Your task to perform on an android device: Open Google Maps Image 0: 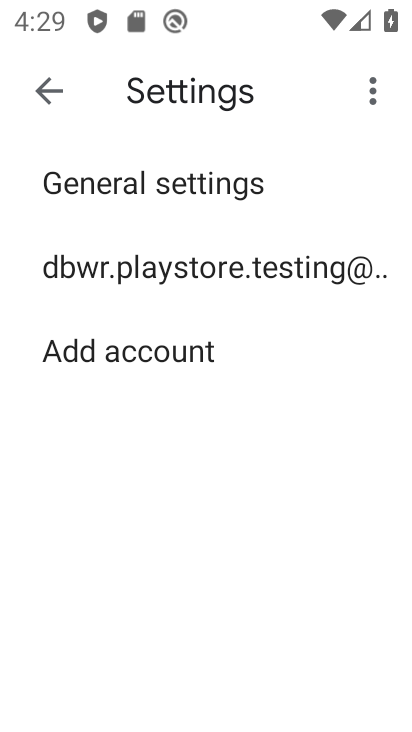
Step 0: press home button
Your task to perform on an android device: Open Google Maps Image 1: 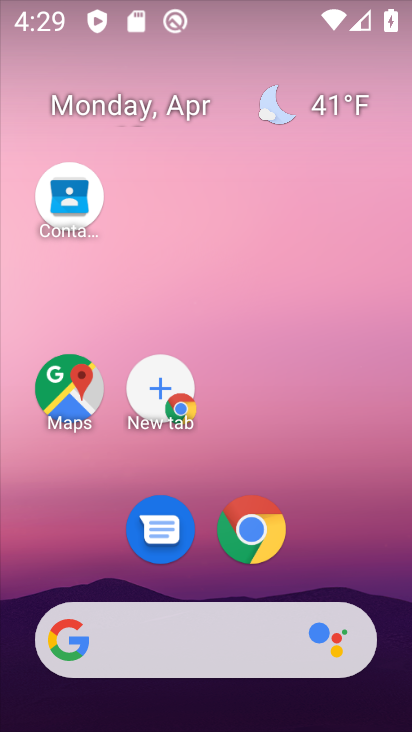
Step 1: click (254, 535)
Your task to perform on an android device: Open Google Maps Image 2: 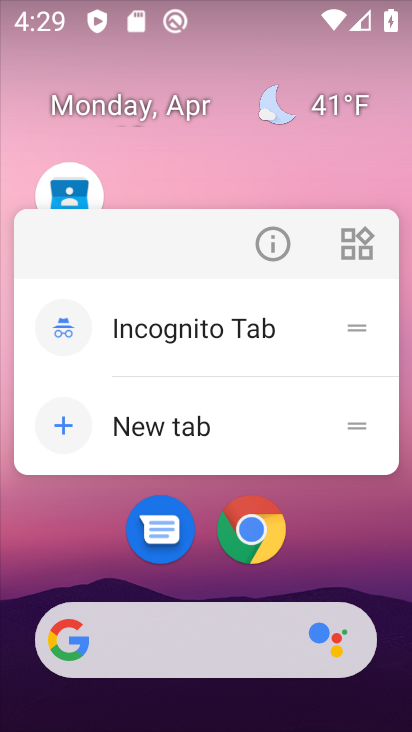
Step 2: click (238, 165)
Your task to perform on an android device: Open Google Maps Image 3: 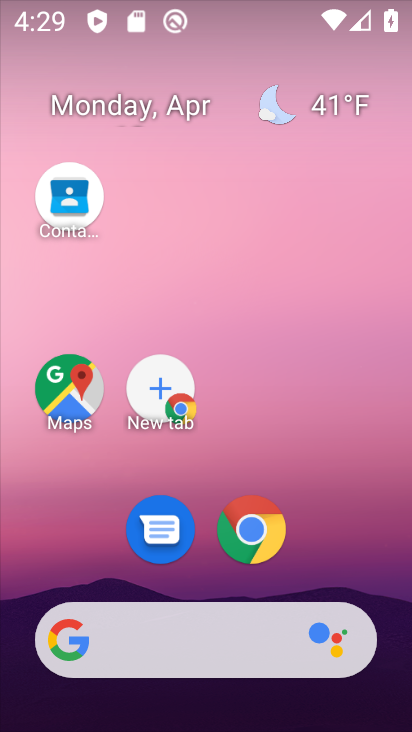
Step 3: click (85, 396)
Your task to perform on an android device: Open Google Maps Image 4: 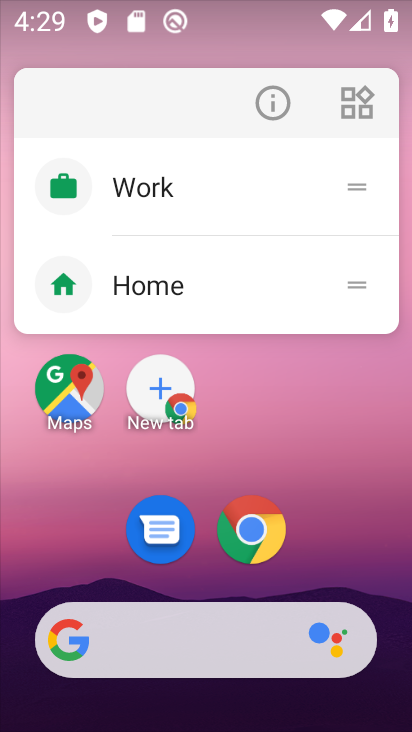
Step 4: click (64, 390)
Your task to perform on an android device: Open Google Maps Image 5: 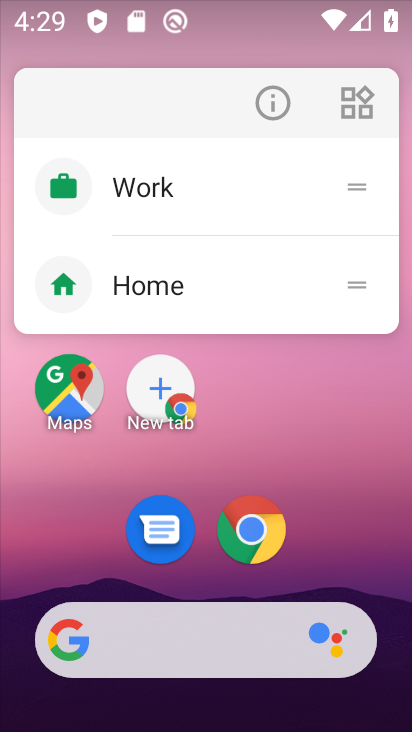
Step 5: click (65, 385)
Your task to perform on an android device: Open Google Maps Image 6: 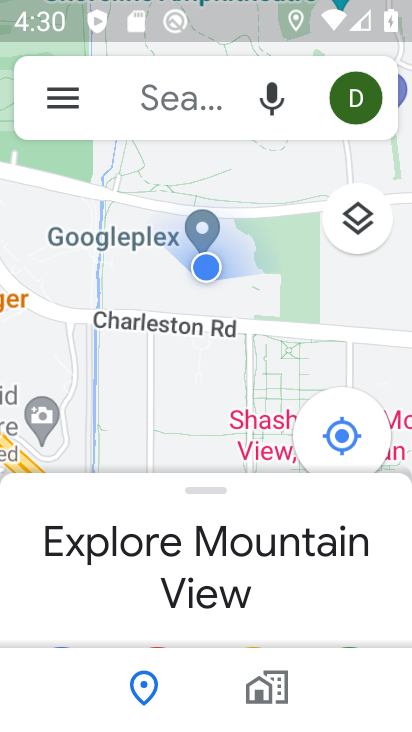
Step 6: task complete